Your task to perform on an android device: create a new album in the google photos Image 0: 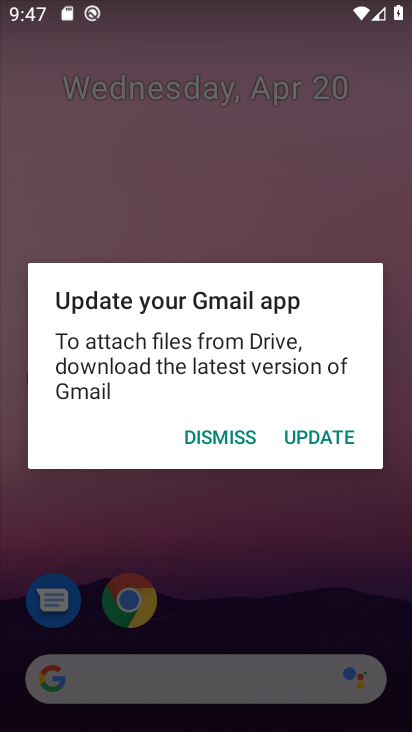
Step 0: press home button
Your task to perform on an android device: create a new album in the google photos Image 1: 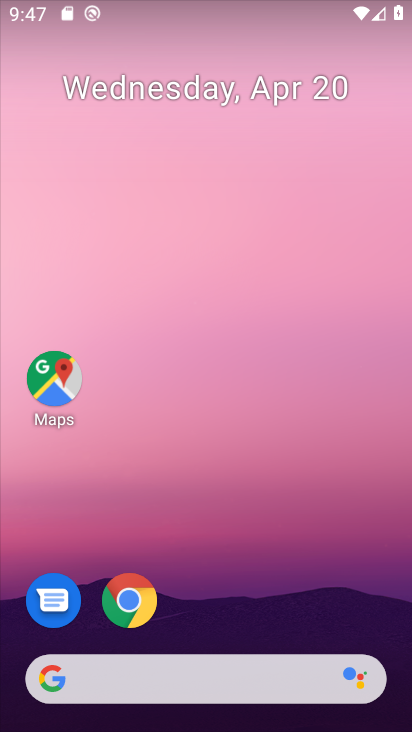
Step 1: drag from (252, 596) to (240, 169)
Your task to perform on an android device: create a new album in the google photos Image 2: 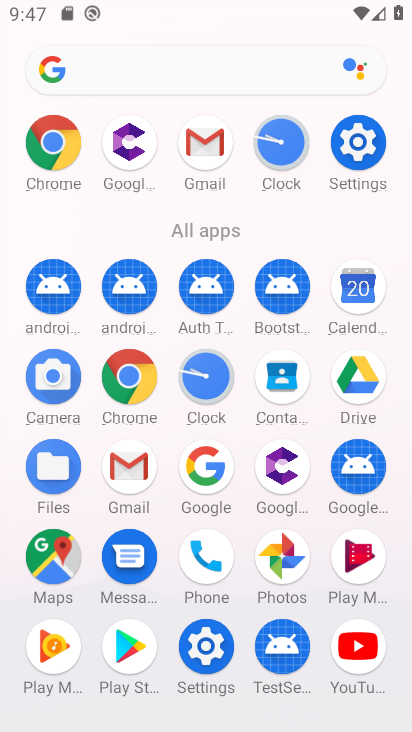
Step 2: drag from (245, 673) to (242, 392)
Your task to perform on an android device: create a new album in the google photos Image 3: 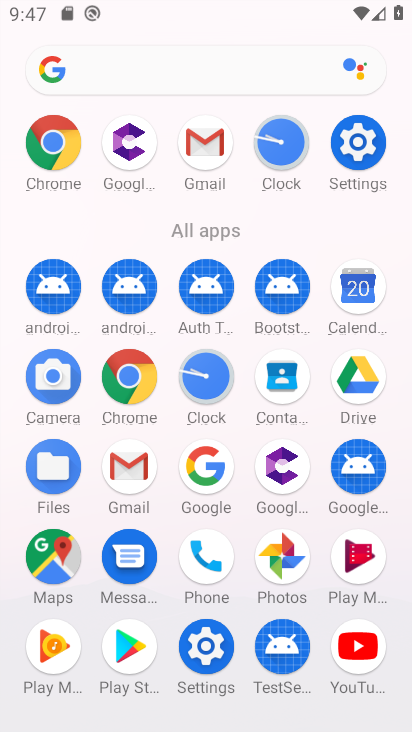
Step 3: click (283, 536)
Your task to perform on an android device: create a new album in the google photos Image 4: 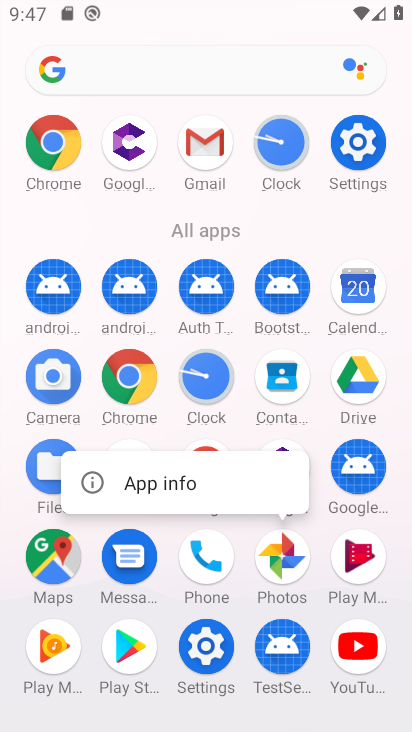
Step 4: click (284, 570)
Your task to perform on an android device: create a new album in the google photos Image 5: 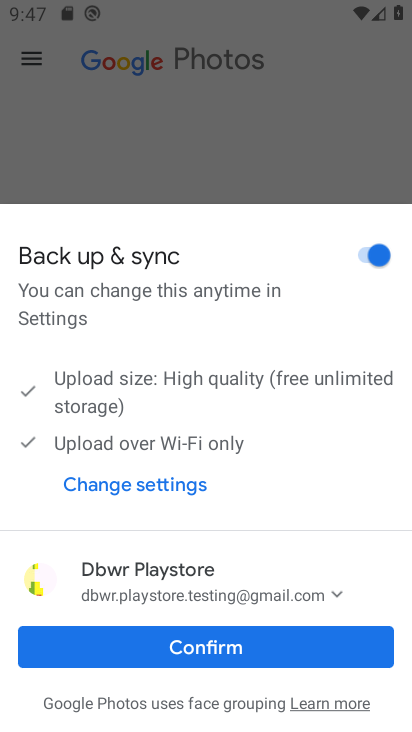
Step 5: click (240, 660)
Your task to perform on an android device: create a new album in the google photos Image 6: 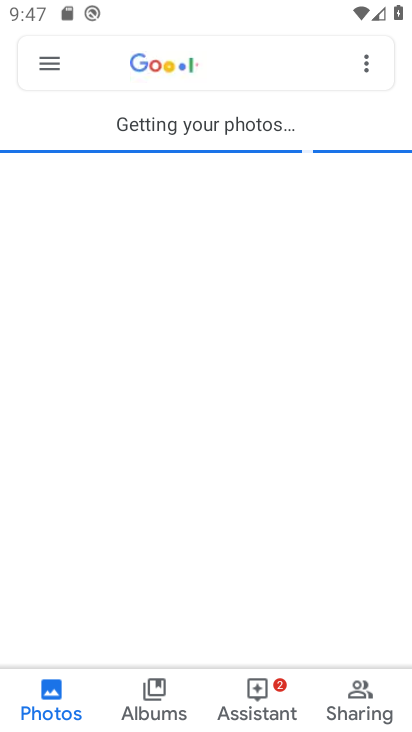
Step 6: click (156, 695)
Your task to perform on an android device: create a new album in the google photos Image 7: 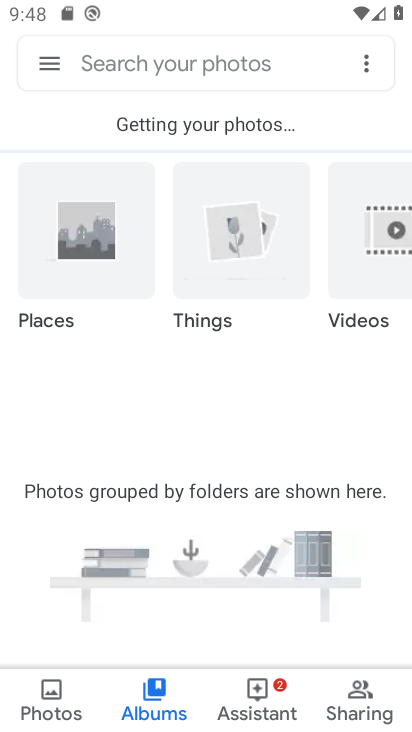
Step 7: click (42, 64)
Your task to perform on an android device: create a new album in the google photos Image 8: 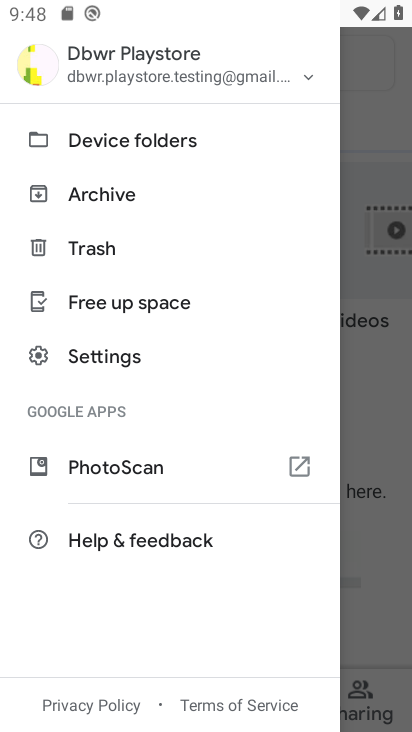
Step 8: click (345, 171)
Your task to perform on an android device: create a new album in the google photos Image 9: 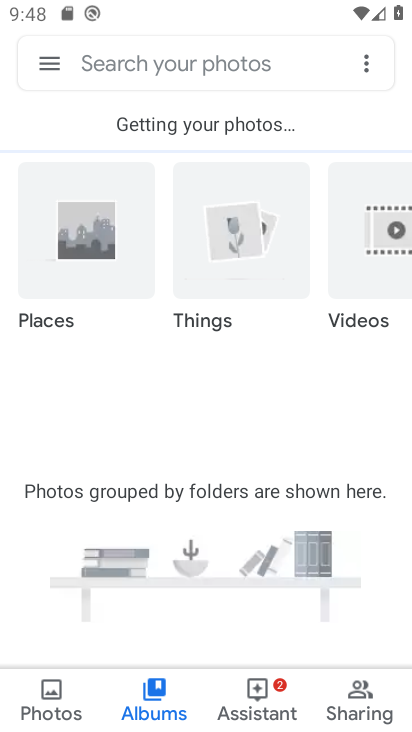
Step 9: click (369, 60)
Your task to perform on an android device: create a new album in the google photos Image 10: 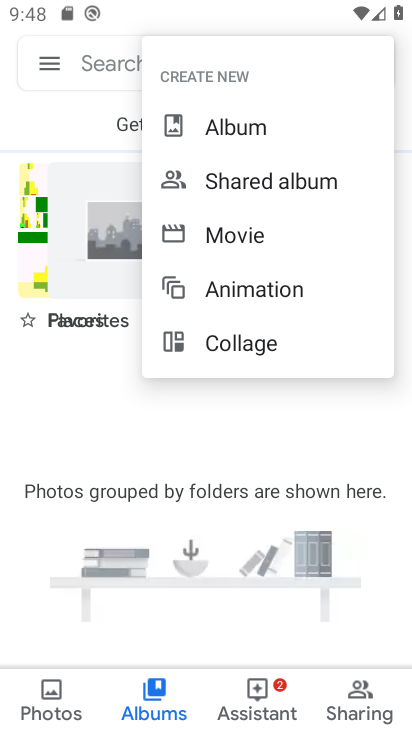
Step 10: click (243, 125)
Your task to perform on an android device: create a new album in the google photos Image 11: 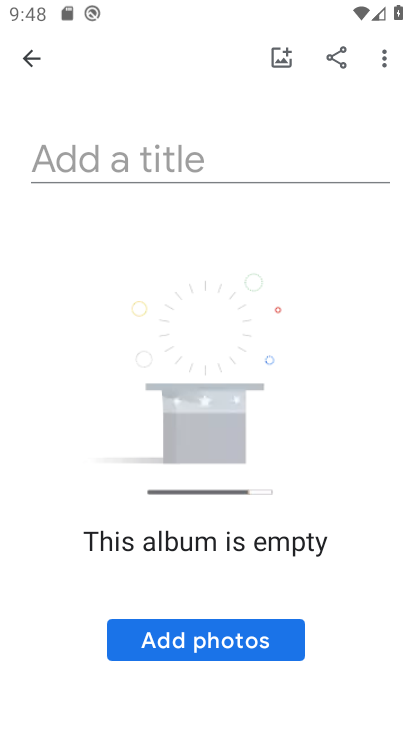
Step 11: click (177, 155)
Your task to perform on an android device: create a new album in the google photos Image 12: 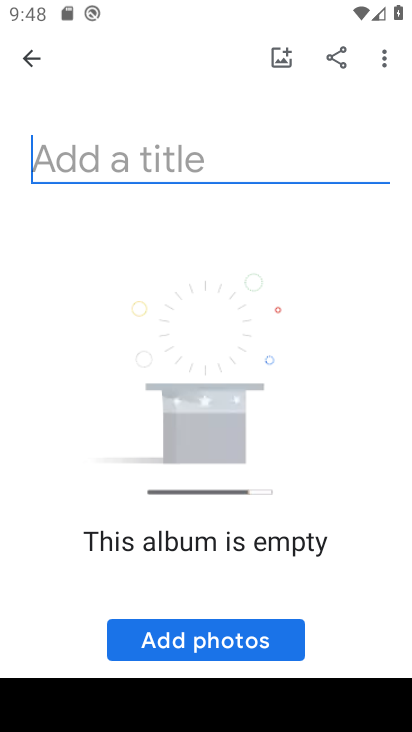
Step 12: type "rty"
Your task to perform on an android device: create a new album in the google photos Image 13: 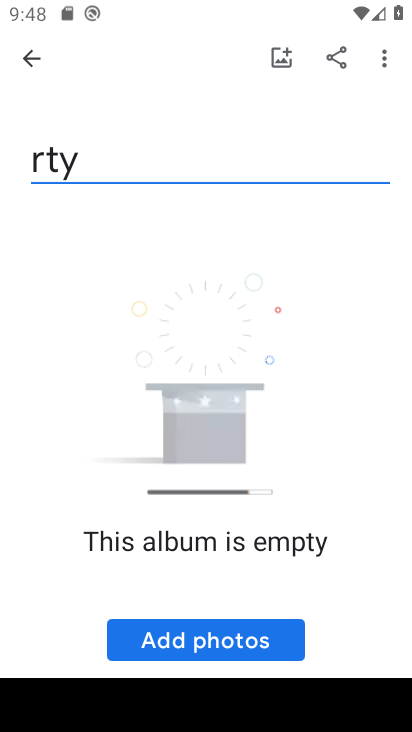
Step 13: click (212, 644)
Your task to perform on an android device: create a new album in the google photos Image 14: 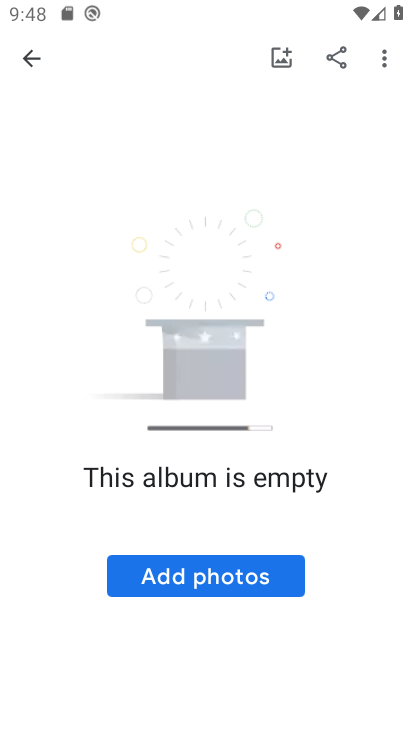
Step 14: click (206, 578)
Your task to perform on an android device: create a new album in the google photos Image 15: 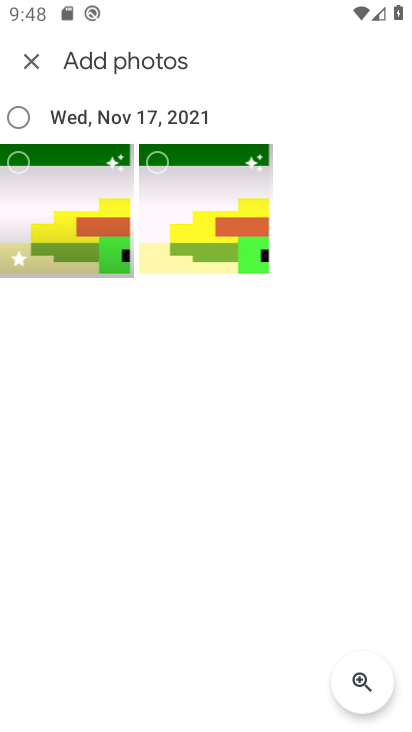
Step 15: click (66, 191)
Your task to perform on an android device: create a new album in the google photos Image 16: 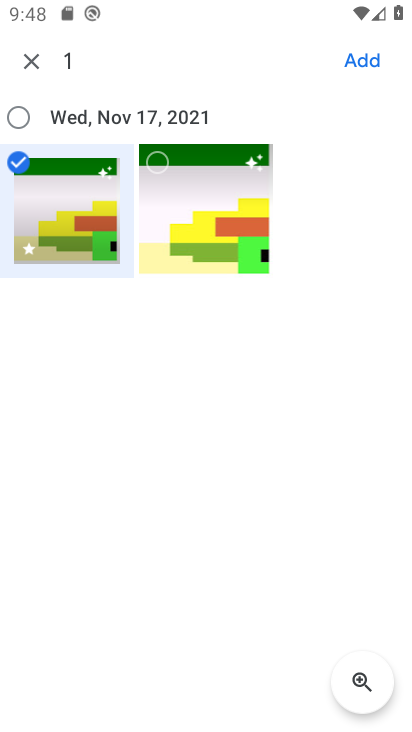
Step 16: click (368, 71)
Your task to perform on an android device: create a new album in the google photos Image 17: 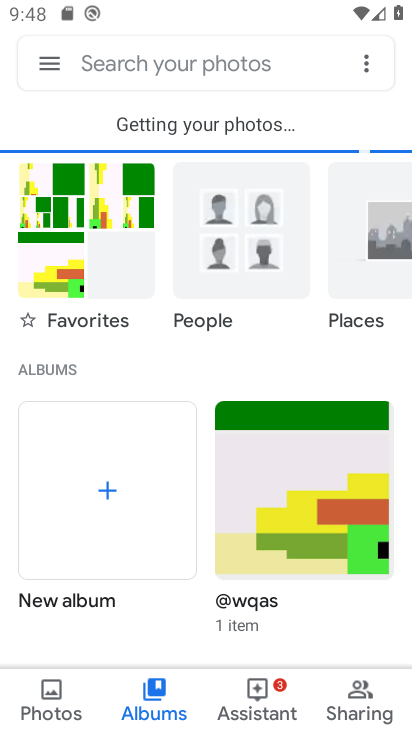
Step 17: task complete